Your task to perform on an android device: Go to ESPN.com Image 0: 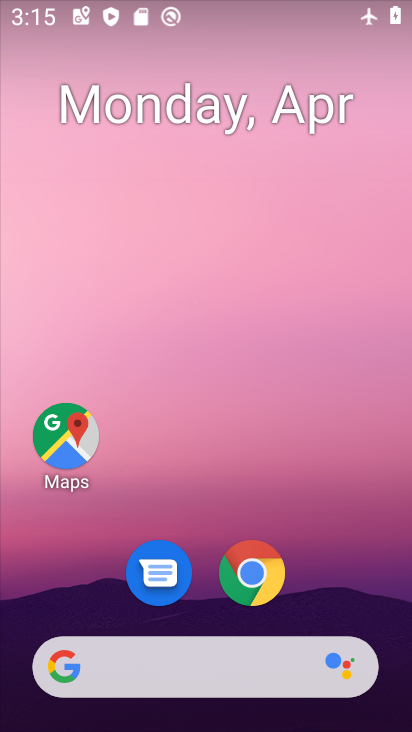
Step 0: drag from (344, 523) to (355, 177)
Your task to perform on an android device: Go to ESPN.com Image 1: 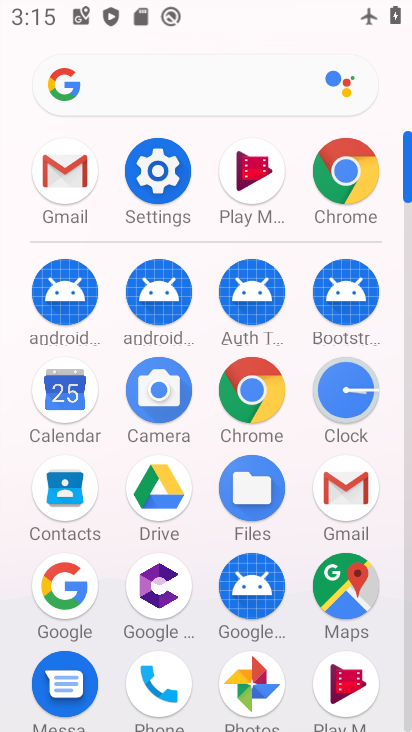
Step 1: click (351, 184)
Your task to perform on an android device: Go to ESPN.com Image 2: 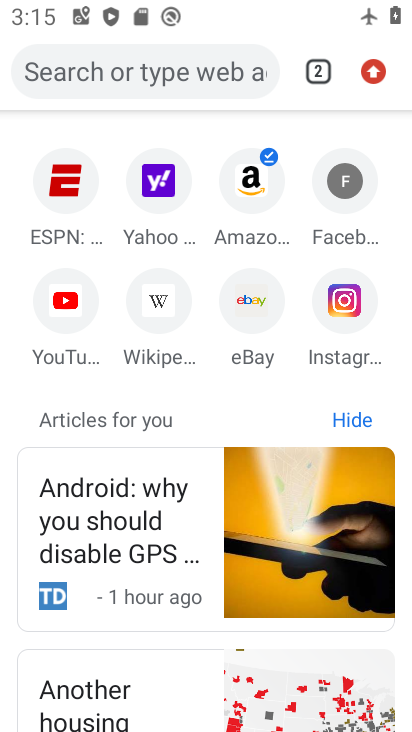
Step 2: click (62, 183)
Your task to perform on an android device: Go to ESPN.com Image 3: 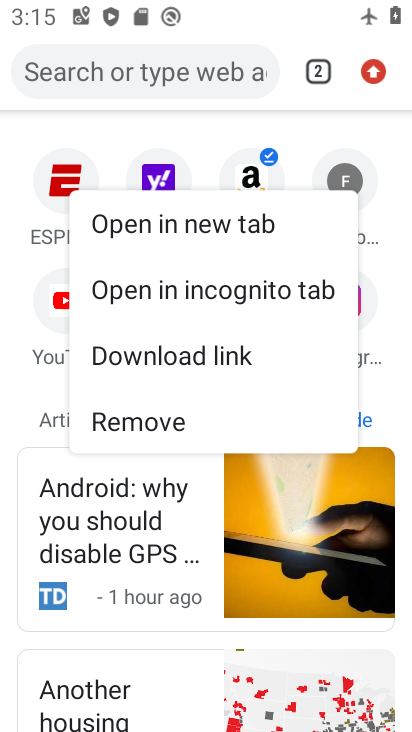
Step 3: click (62, 183)
Your task to perform on an android device: Go to ESPN.com Image 4: 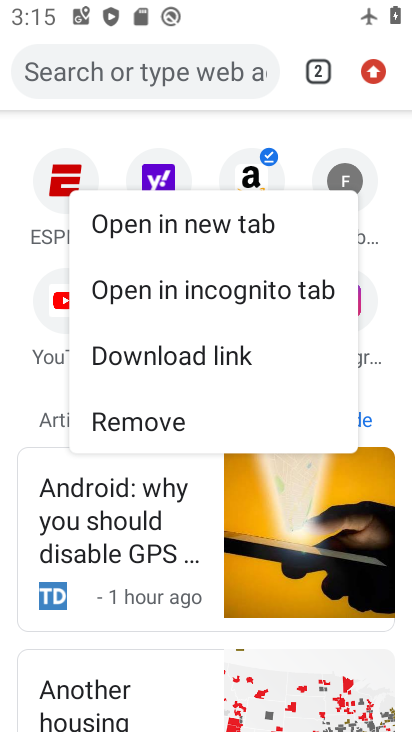
Step 4: click (56, 171)
Your task to perform on an android device: Go to ESPN.com Image 5: 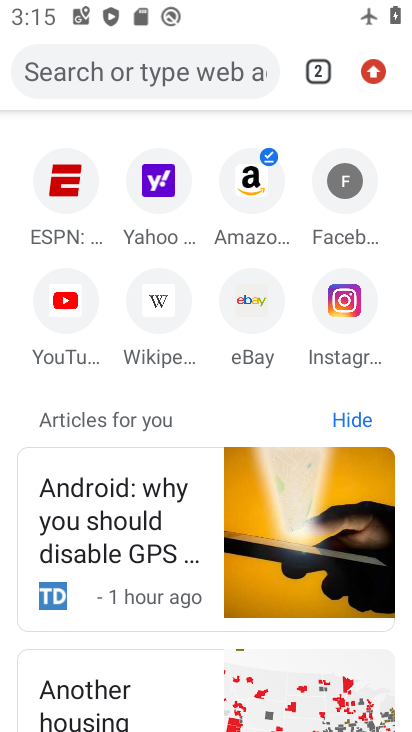
Step 5: click (61, 195)
Your task to perform on an android device: Go to ESPN.com Image 6: 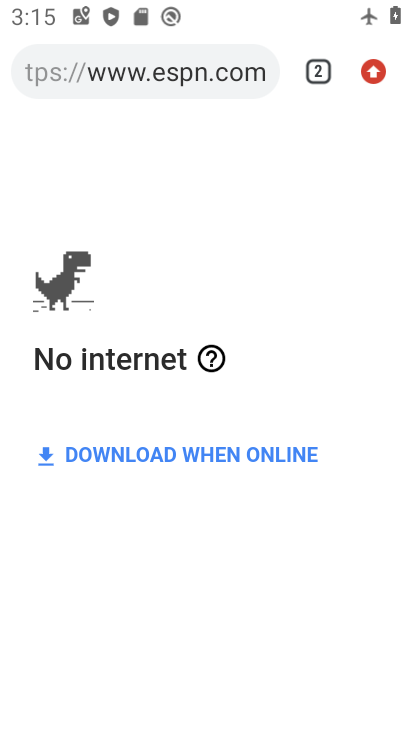
Step 6: task complete